Your task to perform on an android device: Open Google Chrome and click the shortcut for Amazon.com Image 0: 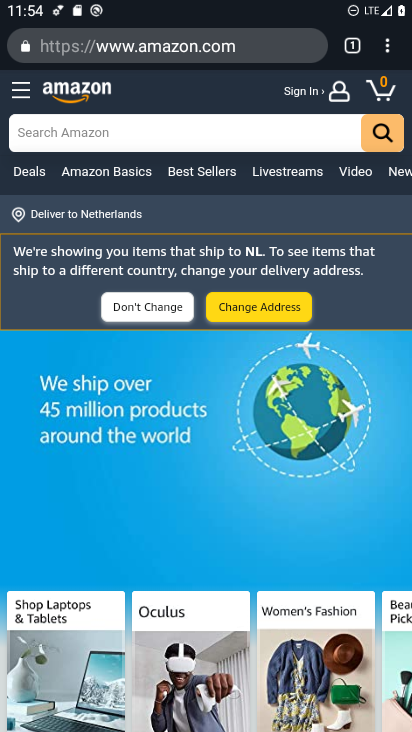
Step 0: press home button
Your task to perform on an android device: Open Google Chrome and click the shortcut for Amazon.com Image 1: 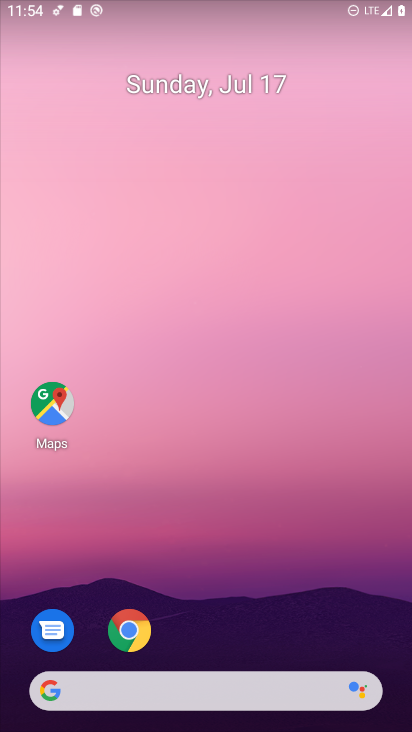
Step 1: click (138, 624)
Your task to perform on an android device: Open Google Chrome and click the shortcut for Amazon.com Image 2: 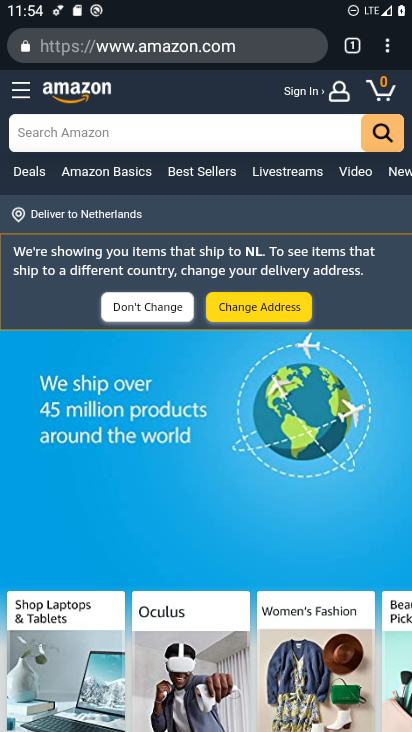
Step 2: click (355, 46)
Your task to perform on an android device: Open Google Chrome and click the shortcut for Amazon.com Image 3: 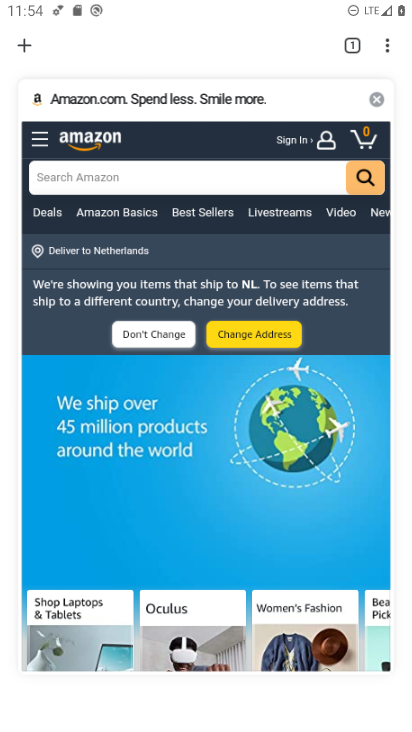
Step 3: click (384, 99)
Your task to perform on an android device: Open Google Chrome and click the shortcut for Amazon.com Image 4: 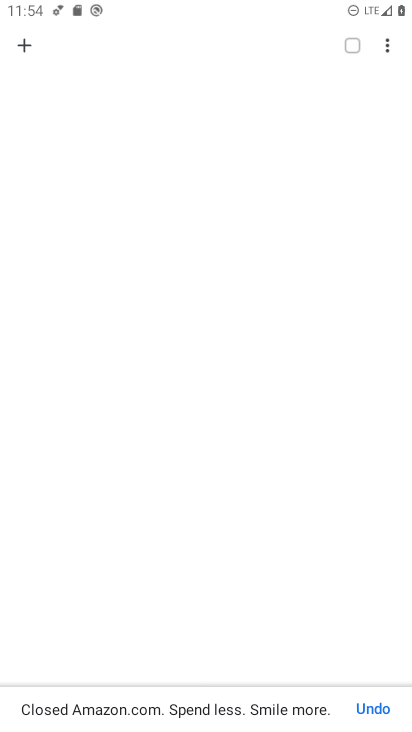
Step 4: click (25, 40)
Your task to perform on an android device: Open Google Chrome and click the shortcut for Amazon.com Image 5: 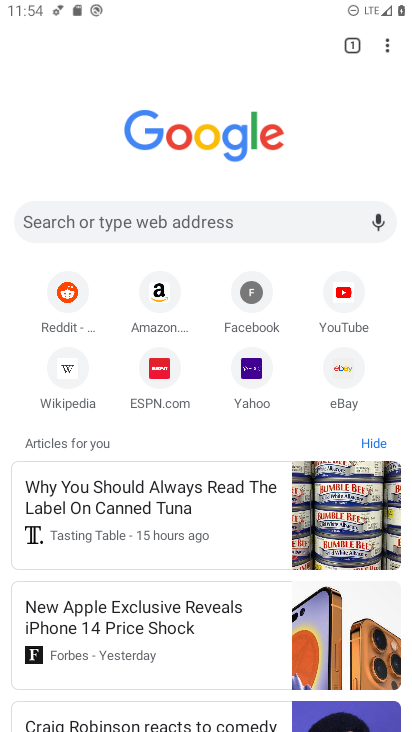
Step 5: click (156, 302)
Your task to perform on an android device: Open Google Chrome and click the shortcut for Amazon.com Image 6: 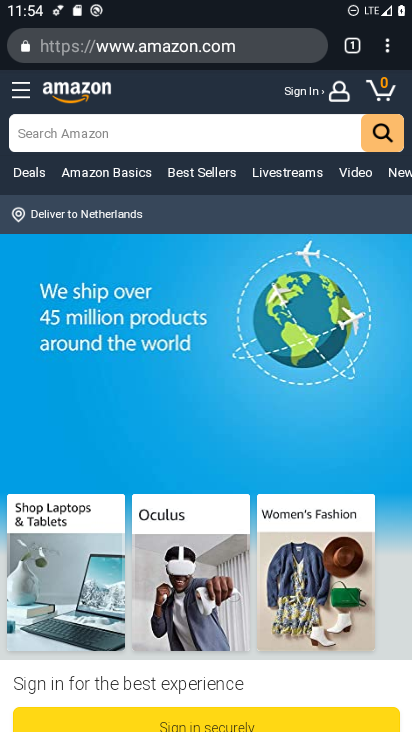
Step 6: task complete